Your task to perform on an android device: toggle data saver in the chrome app Image 0: 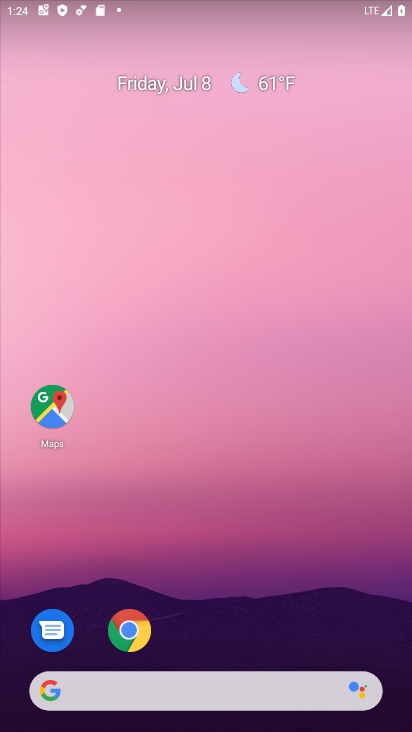
Step 0: drag from (369, 616) to (253, 37)
Your task to perform on an android device: toggle data saver in the chrome app Image 1: 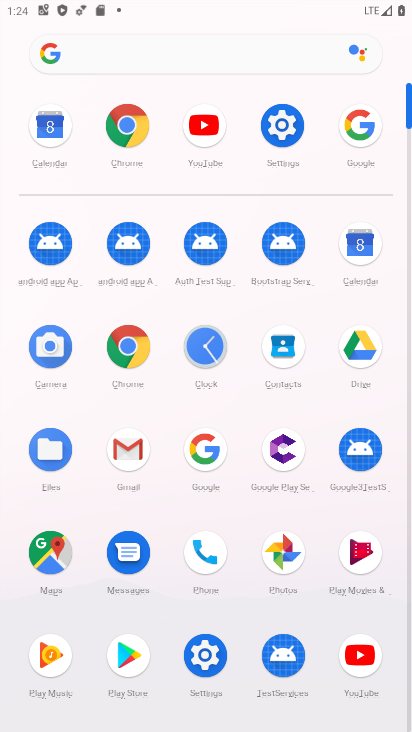
Step 1: click (123, 344)
Your task to perform on an android device: toggle data saver in the chrome app Image 2: 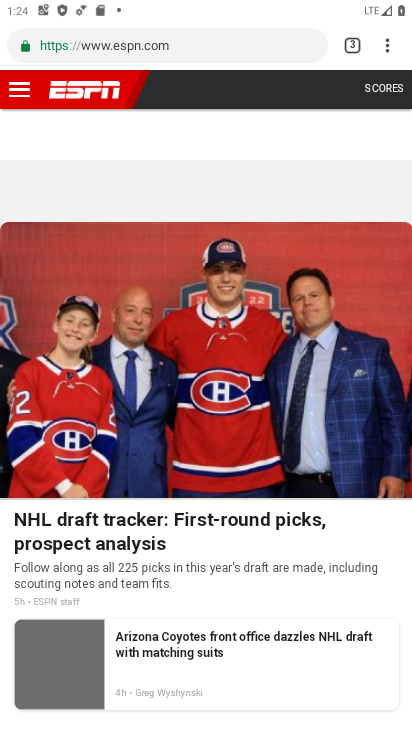
Step 2: press back button
Your task to perform on an android device: toggle data saver in the chrome app Image 3: 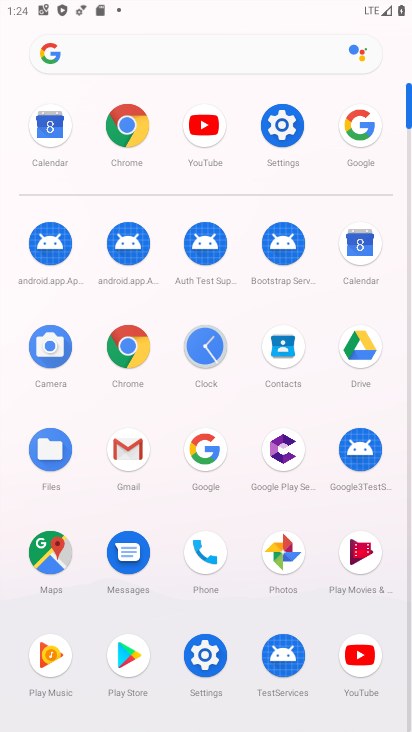
Step 3: click (133, 348)
Your task to perform on an android device: toggle data saver in the chrome app Image 4: 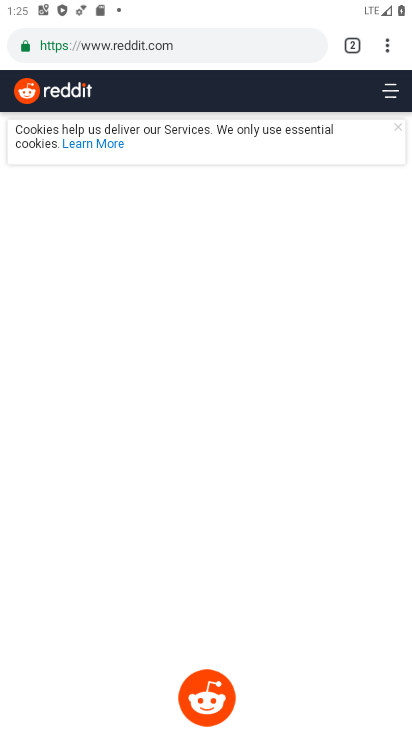
Step 4: press back button
Your task to perform on an android device: toggle data saver in the chrome app Image 5: 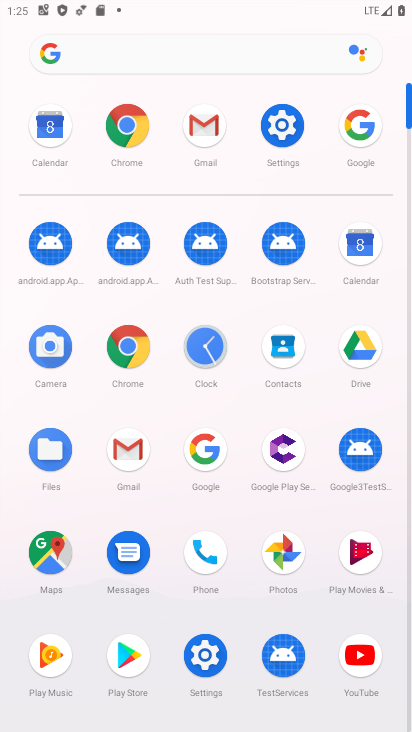
Step 5: click (130, 345)
Your task to perform on an android device: toggle data saver in the chrome app Image 6: 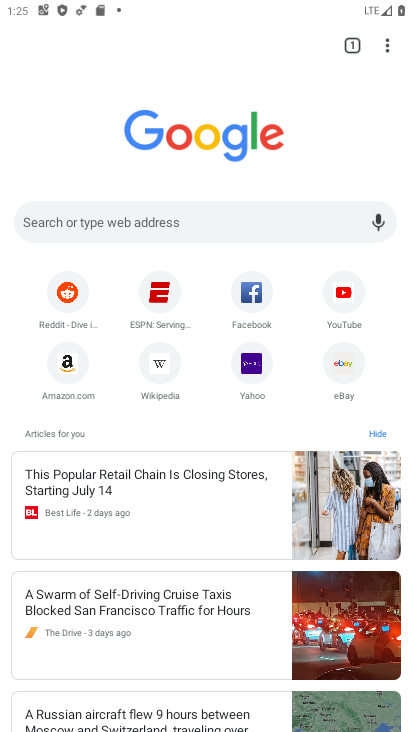
Step 6: click (384, 39)
Your task to perform on an android device: toggle data saver in the chrome app Image 7: 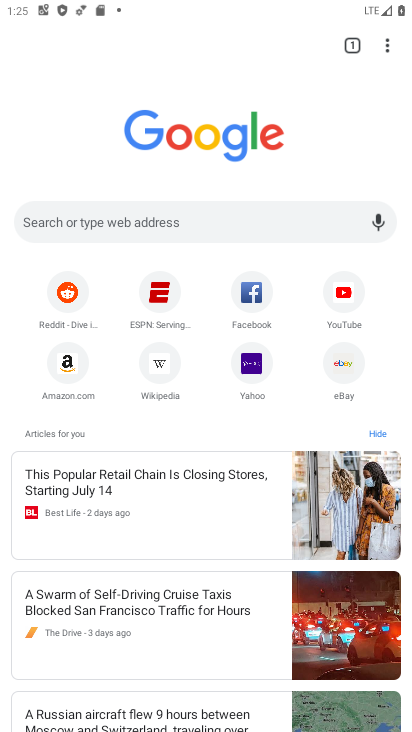
Step 7: click (389, 38)
Your task to perform on an android device: toggle data saver in the chrome app Image 8: 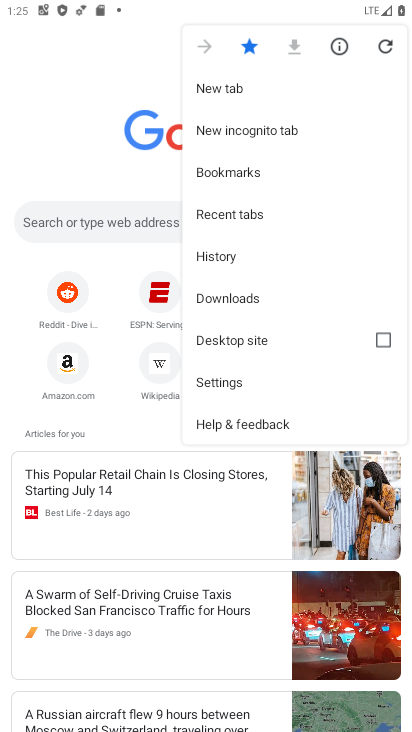
Step 8: click (250, 380)
Your task to perform on an android device: toggle data saver in the chrome app Image 9: 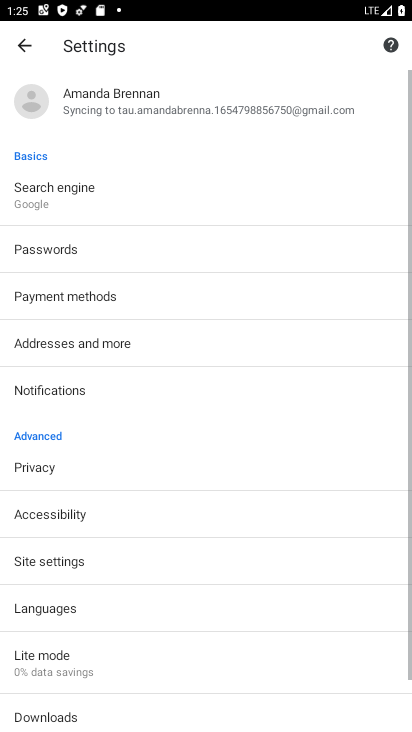
Step 9: click (70, 643)
Your task to perform on an android device: toggle data saver in the chrome app Image 10: 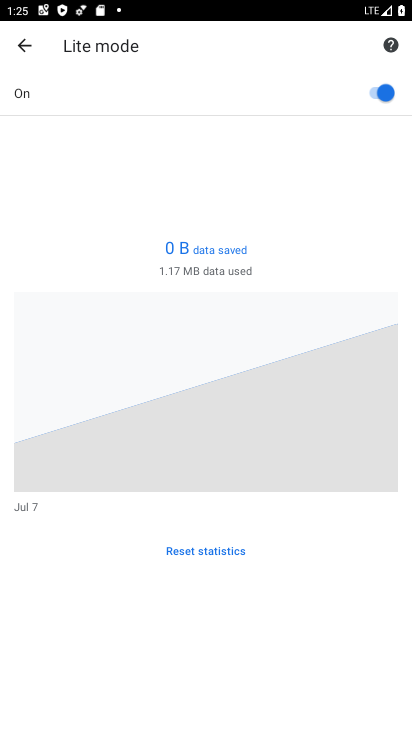
Step 10: click (363, 99)
Your task to perform on an android device: toggle data saver in the chrome app Image 11: 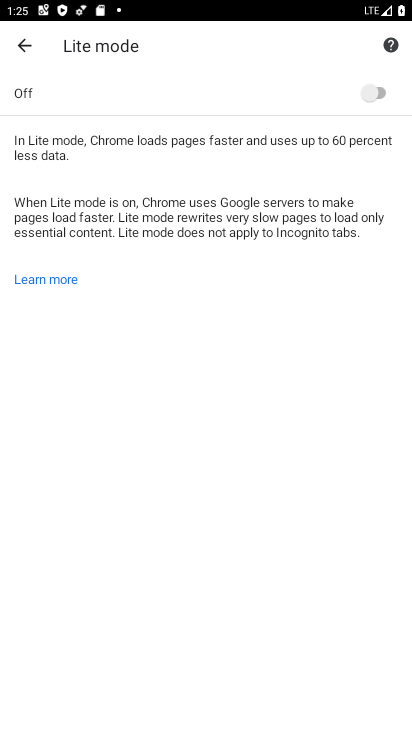
Step 11: task complete